Your task to perform on an android device: set an alarm Image 0: 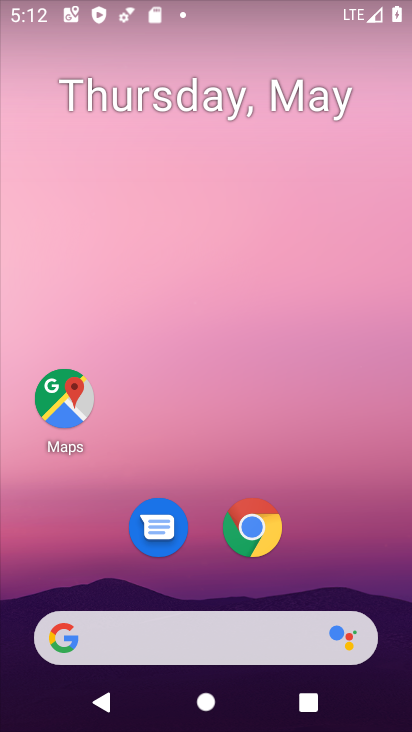
Step 0: drag from (361, 538) to (295, 44)
Your task to perform on an android device: set an alarm Image 1: 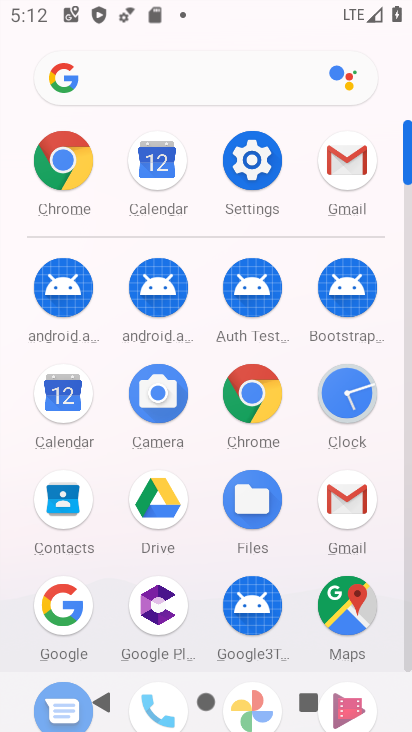
Step 1: click (336, 383)
Your task to perform on an android device: set an alarm Image 2: 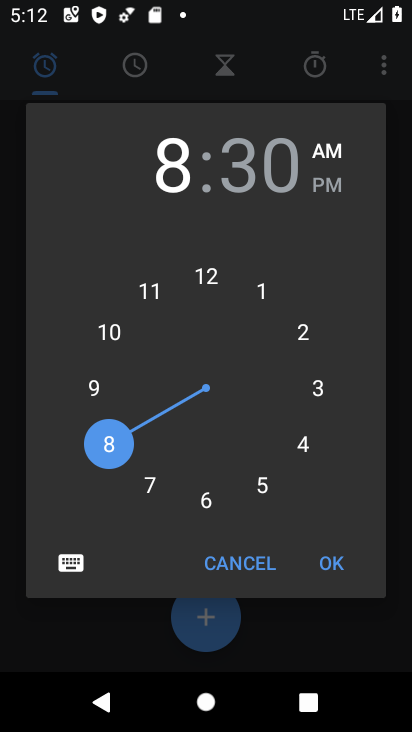
Step 2: click (336, 383)
Your task to perform on an android device: set an alarm Image 3: 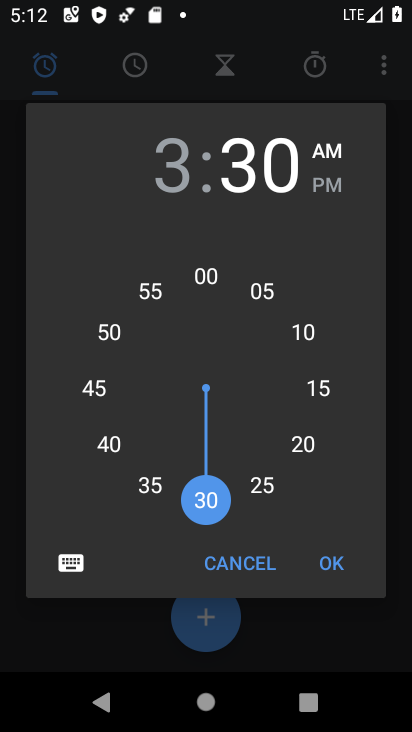
Step 3: click (257, 569)
Your task to perform on an android device: set an alarm Image 4: 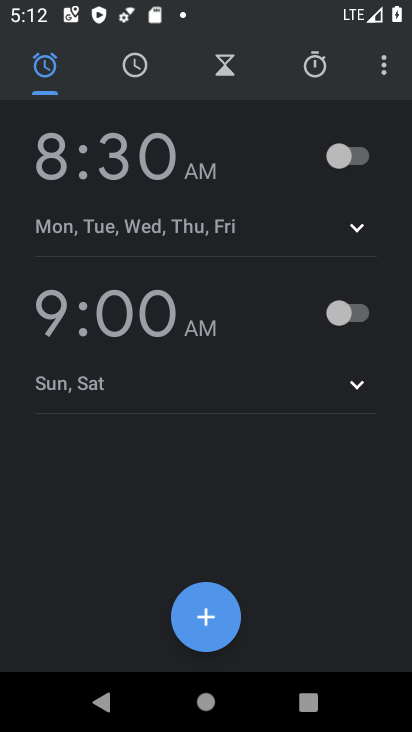
Step 4: click (353, 158)
Your task to perform on an android device: set an alarm Image 5: 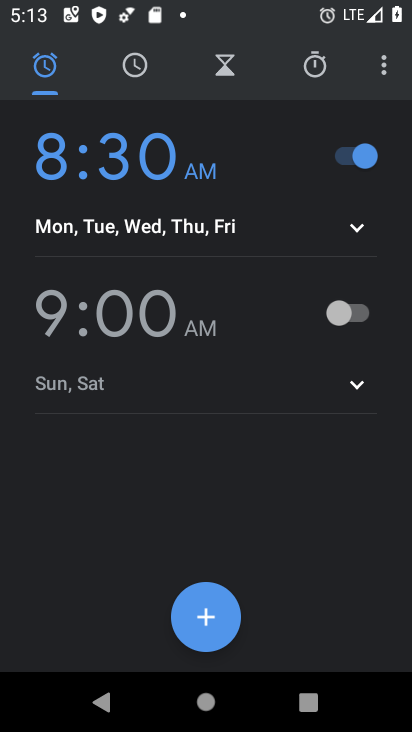
Step 5: task complete